Your task to perform on an android device: Go to battery settings Image 0: 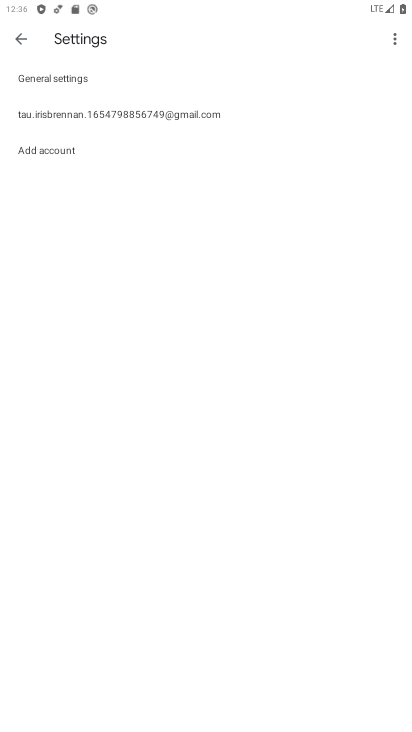
Step 0: press home button
Your task to perform on an android device: Go to battery settings Image 1: 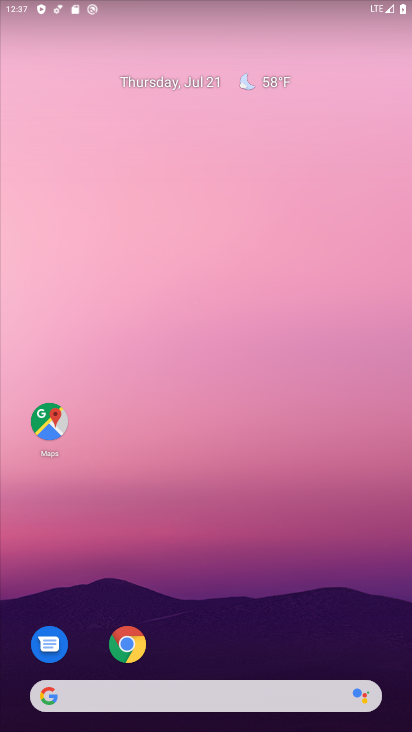
Step 1: drag from (359, 624) to (377, 37)
Your task to perform on an android device: Go to battery settings Image 2: 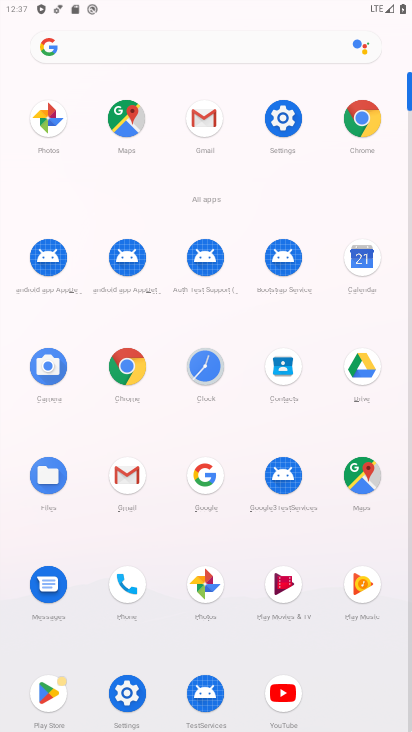
Step 2: click (292, 128)
Your task to perform on an android device: Go to battery settings Image 3: 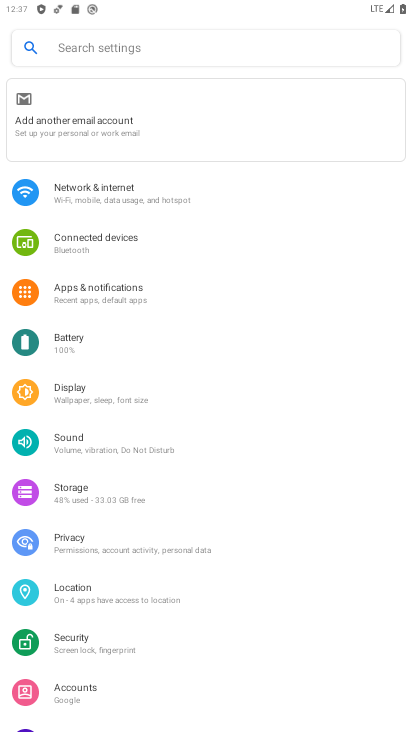
Step 3: drag from (322, 462) to (328, 369)
Your task to perform on an android device: Go to battery settings Image 4: 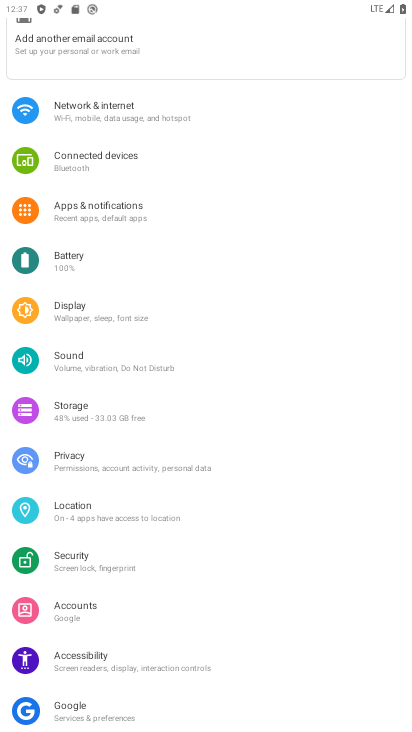
Step 4: drag from (337, 445) to (349, 361)
Your task to perform on an android device: Go to battery settings Image 5: 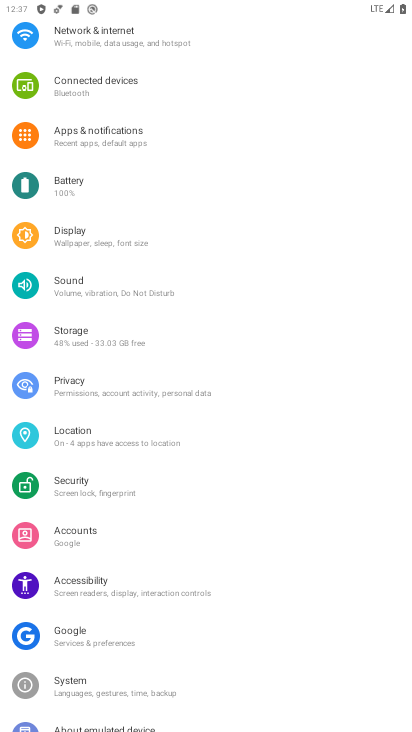
Step 5: drag from (291, 575) to (300, 435)
Your task to perform on an android device: Go to battery settings Image 6: 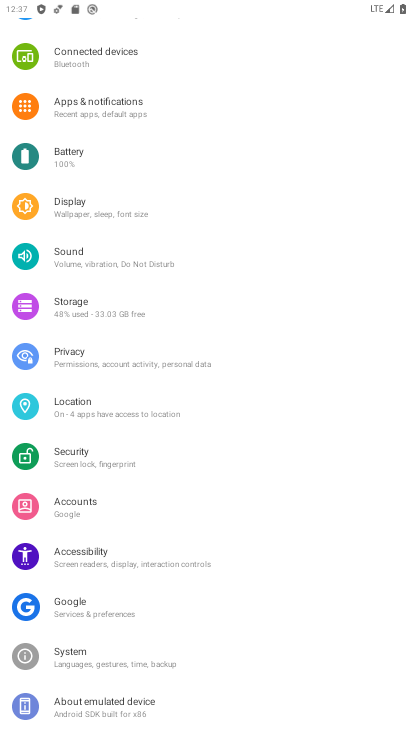
Step 6: drag from (297, 570) to (307, 437)
Your task to perform on an android device: Go to battery settings Image 7: 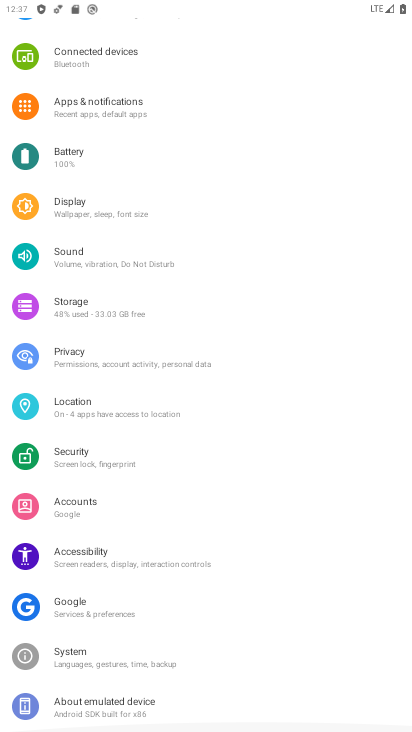
Step 7: drag from (311, 338) to (308, 443)
Your task to perform on an android device: Go to battery settings Image 8: 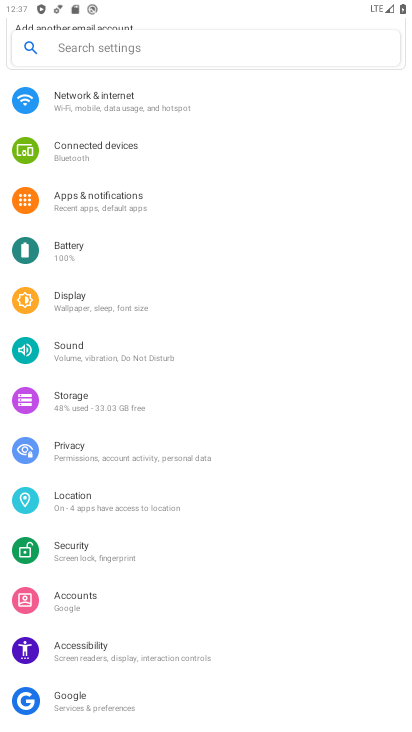
Step 8: drag from (312, 300) to (317, 424)
Your task to perform on an android device: Go to battery settings Image 9: 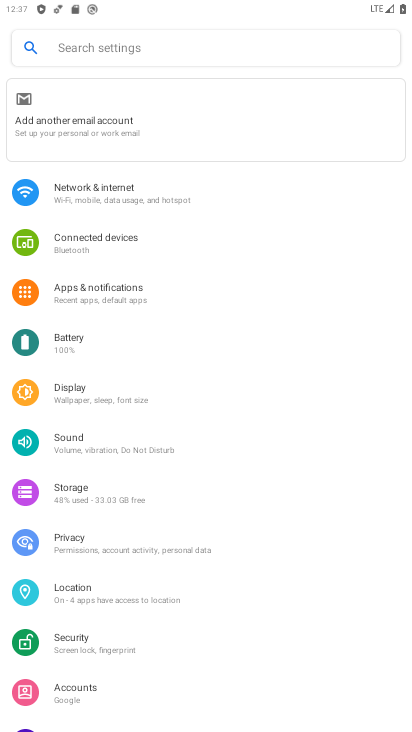
Step 9: click (151, 354)
Your task to perform on an android device: Go to battery settings Image 10: 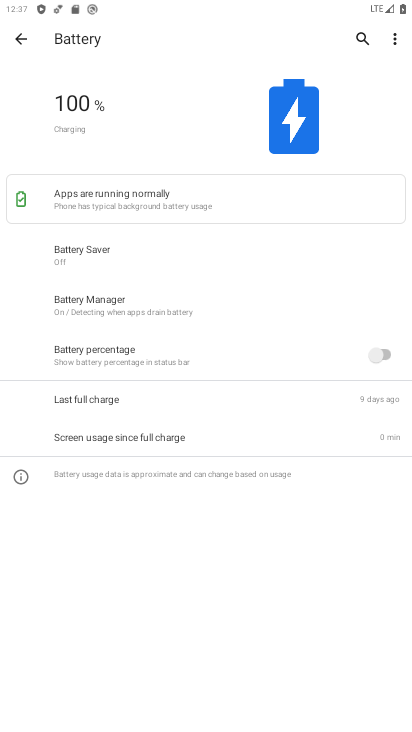
Step 10: task complete